Your task to perform on an android device: Open Chrome and go to settings Image 0: 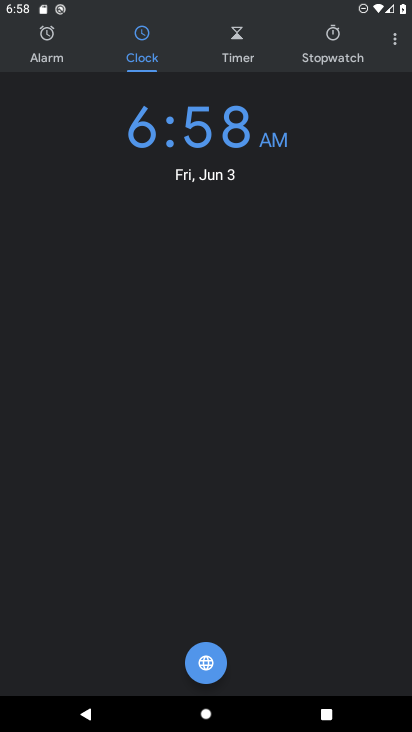
Step 0: press home button
Your task to perform on an android device: Open Chrome and go to settings Image 1: 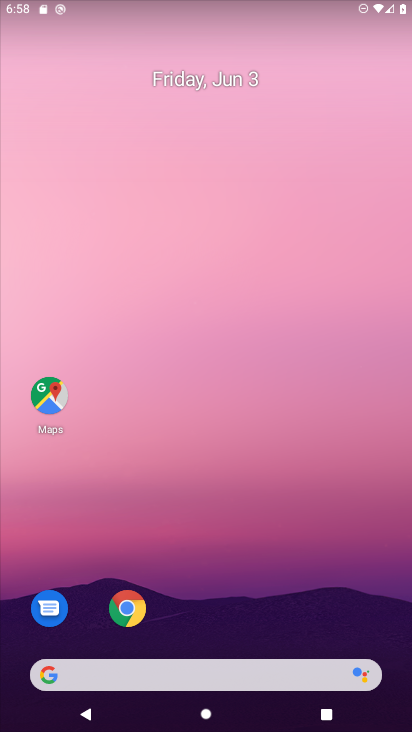
Step 1: click (128, 609)
Your task to perform on an android device: Open Chrome and go to settings Image 2: 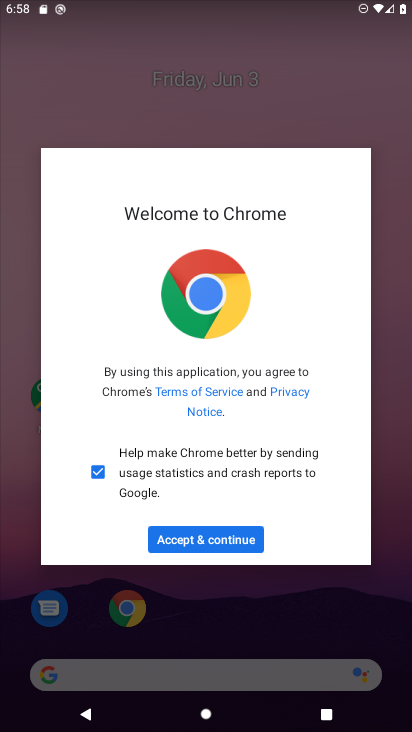
Step 2: click (221, 536)
Your task to perform on an android device: Open Chrome and go to settings Image 3: 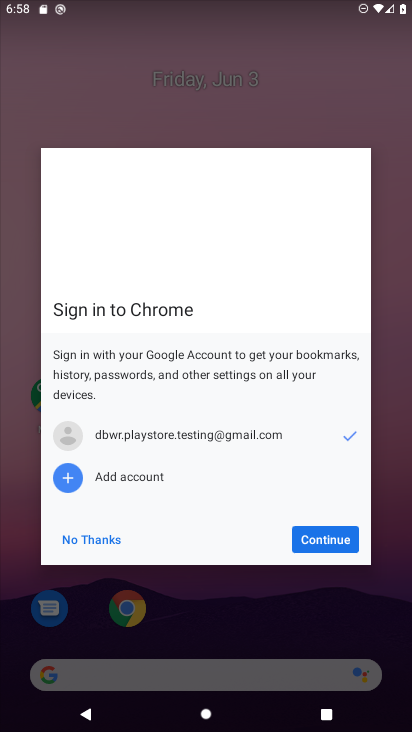
Step 3: click (221, 536)
Your task to perform on an android device: Open Chrome and go to settings Image 4: 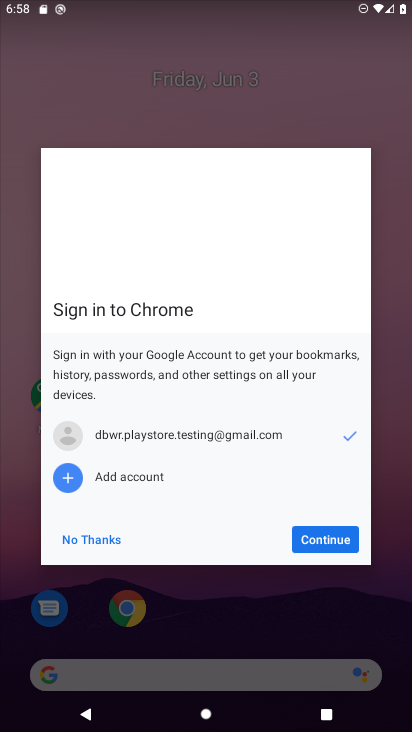
Step 4: click (333, 533)
Your task to perform on an android device: Open Chrome and go to settings Image 5: 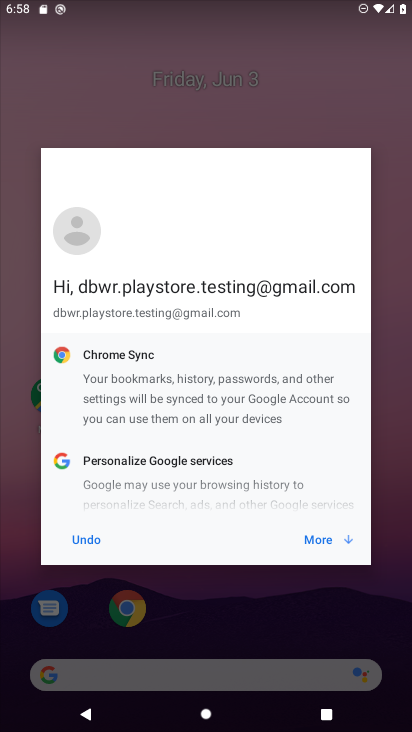
Step 5: click (330, 536)
Your task to perform on an android device: Open Chrome and go to settings Image 6: 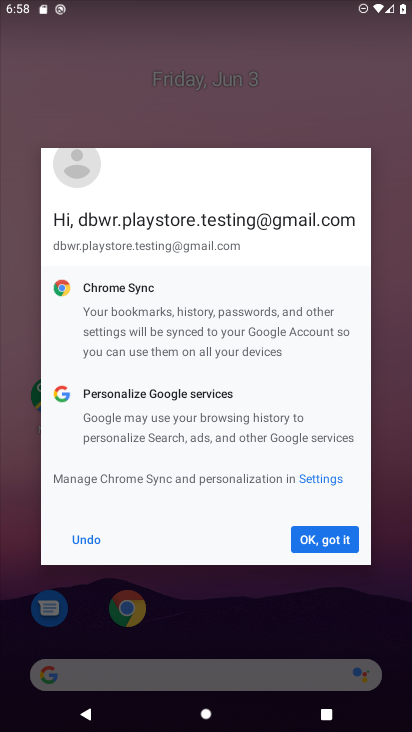
Step 6: click (330, 536)
Your task to perform on an android device: Open Chrome and go to settings Image 7: 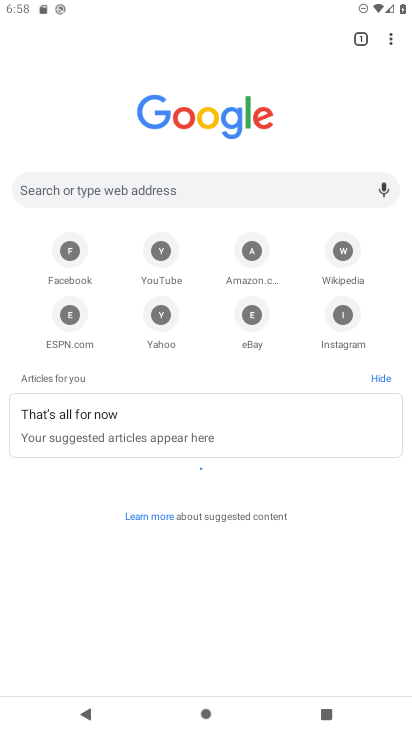
Step 7: click (383, 39)
Your task to perform on an android device: Open Chrome and go to settings Image 8: 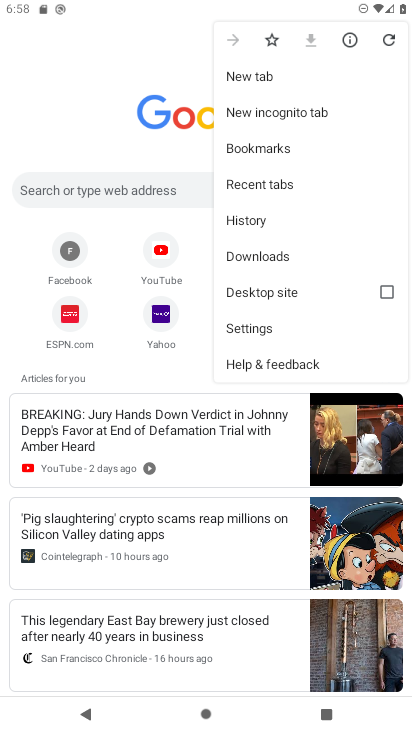
Step 8: click (267, 326)
Your task to perform on an android device: Open Chrome and go to settings Image 9: 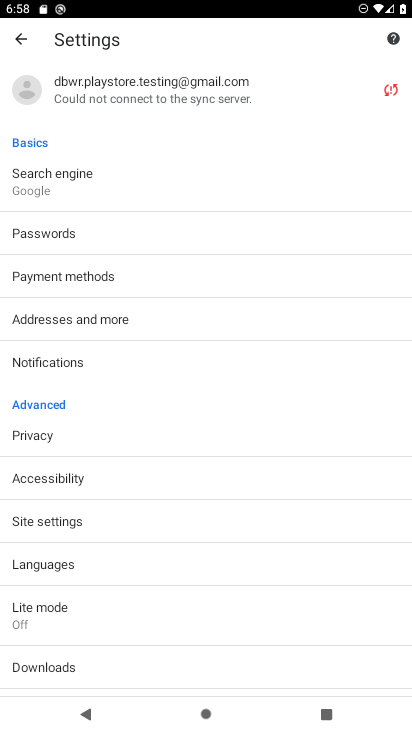
Step 9: task complete